Your task to perform on an android device: What's on my calendar tomorrow? Image 0: 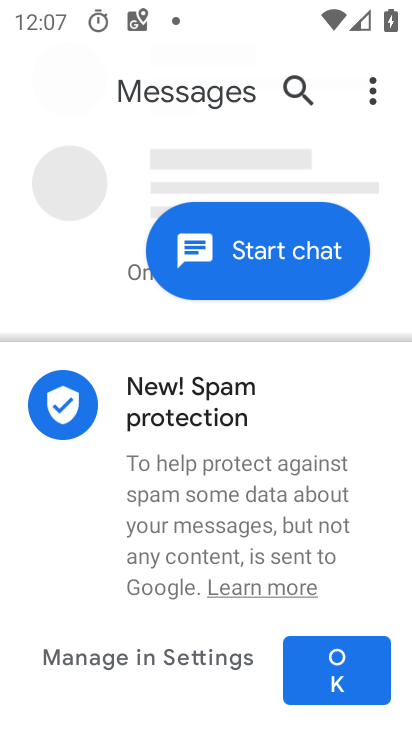
Step 0: press home button
Your task to perform on an android device: What's on my calendar tomorrow? Image 1: 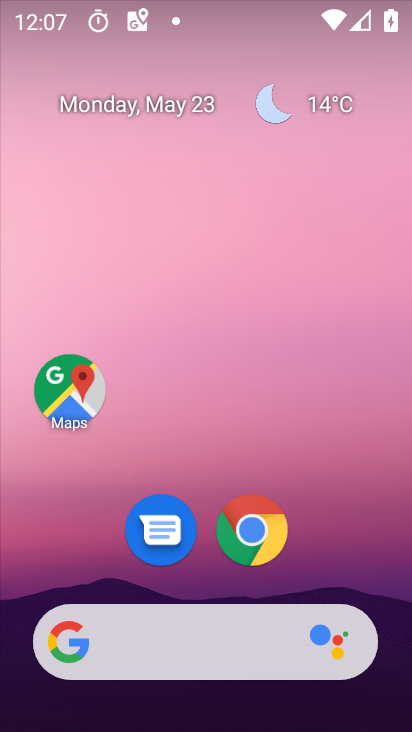
Step 1: drag from (368, 597) to (339, 158)
Your task to perform on an android device: What's on my calendar tomorrow? Image 2: 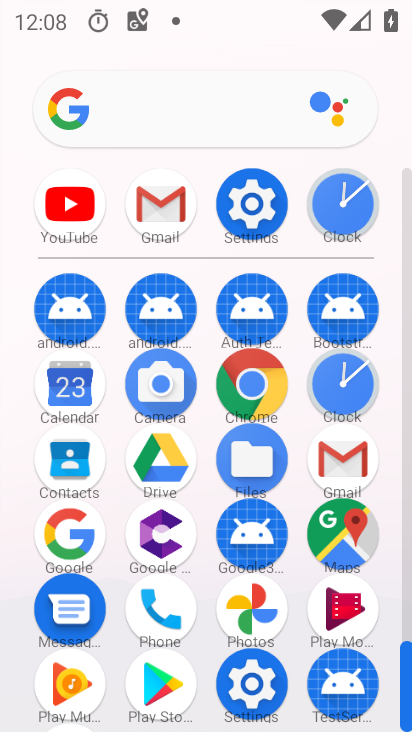
Step 2: click (52, 396)
Your task to perform on an android device: What's on my calendar tomorrow? Image 3: 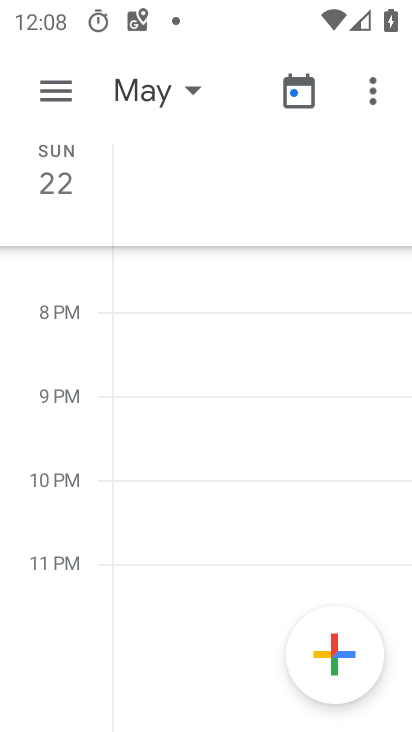
Step 3: click (188, 90)
Your task to perform on an android device: What's on my calendar tomorrow? Image 4: 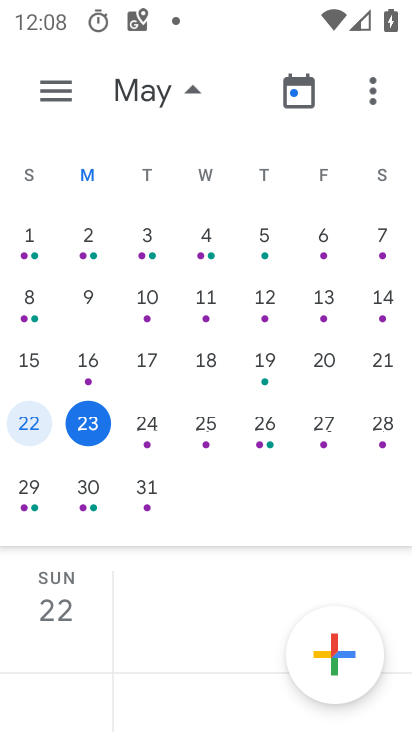
Step 4: click (138, 426)
Your task to perform on an android device: What's on my calendar tomorrow? Image 5: 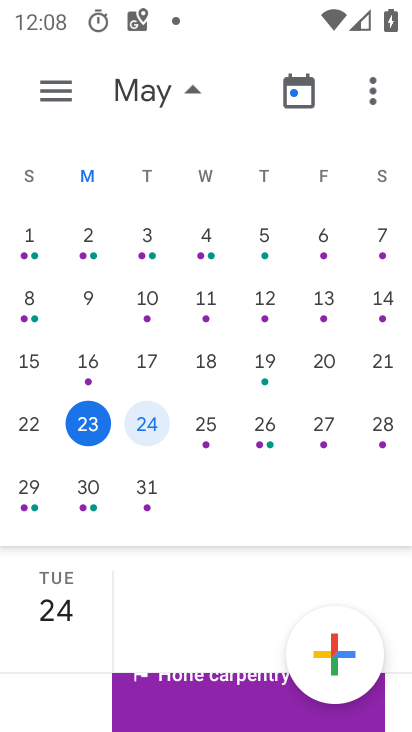
Step 5: click (48, 102)
Your task to perform on an android device: What's on my calendar tomorrow? Image 6: 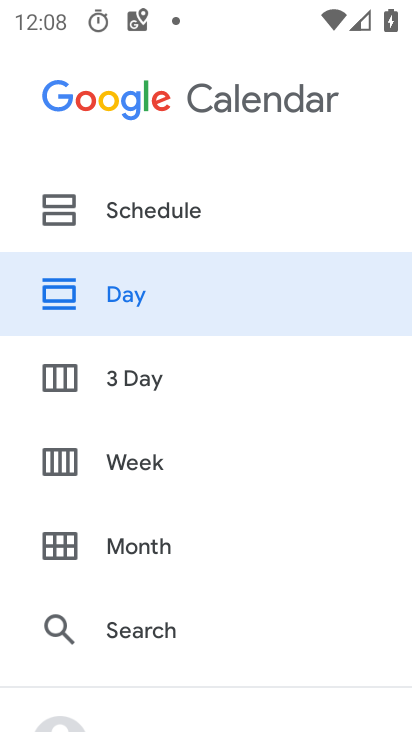
Step 6: click (91, 303)
Your task to perform on an android device: What's on my calendar tomorrow? Image 7: 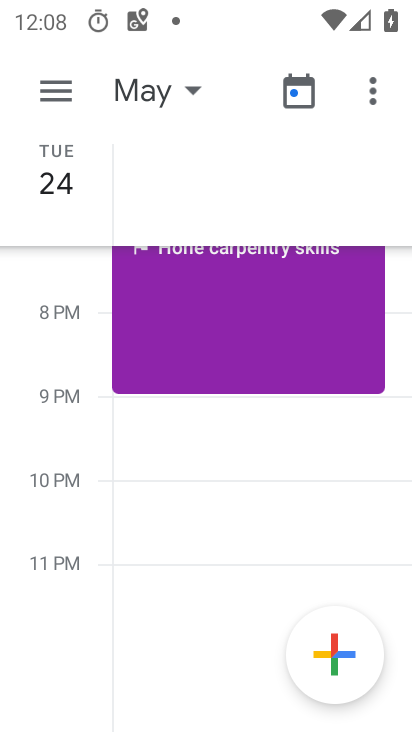
Step 7: task complete